Your task to perform on an android device: open app "PlayWell" (install if not already installed) Image 0: 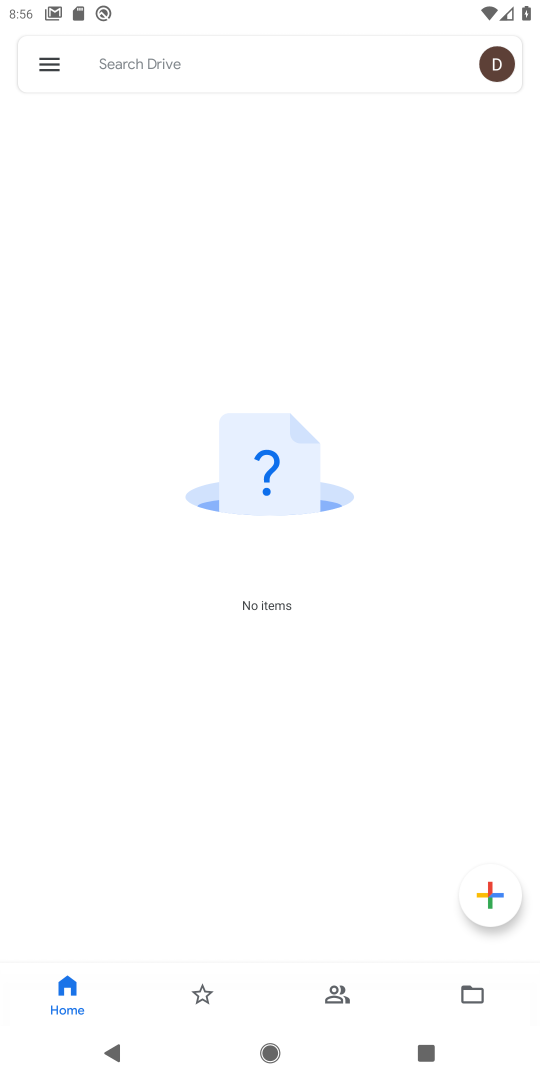
Step 0: press home button
Your task to perform on an android device: open app "PlayWell" (install if not already installed) Image 1: 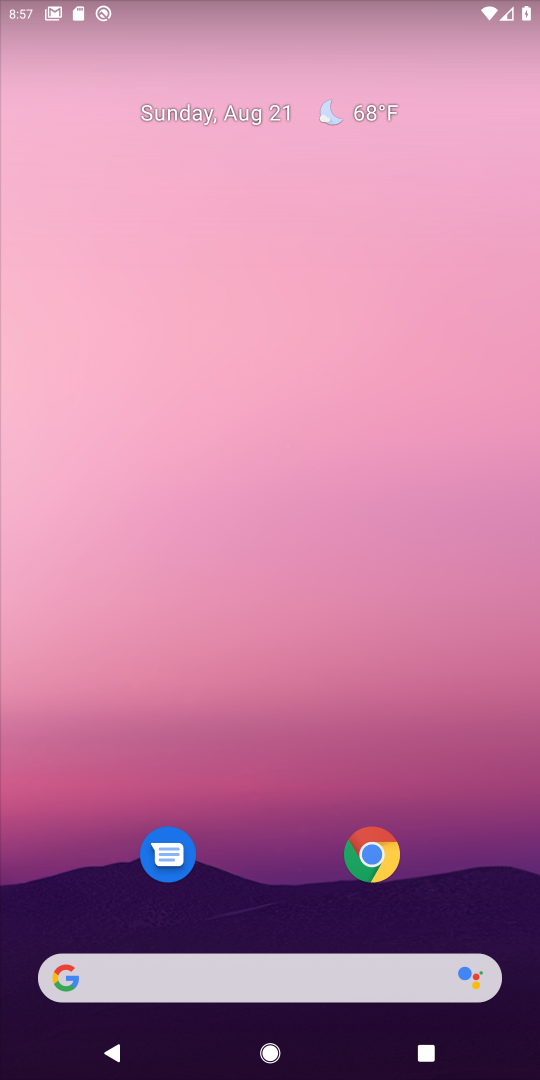
Step 1: drag from (263, 938) to (244, 1)
Your task to perform on an android device: open app "PlayWell" (install if not already installed) Image 2: 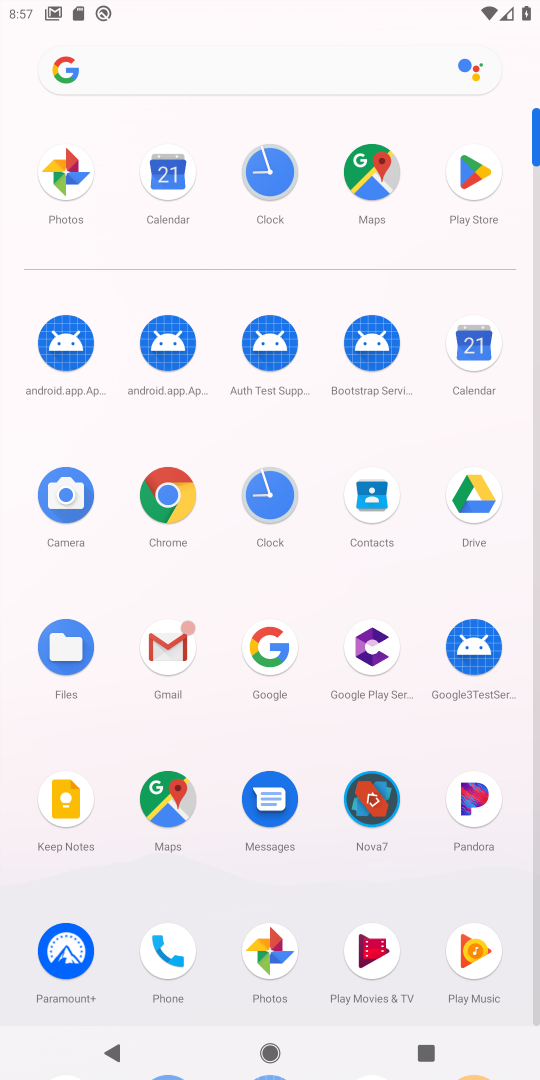
Step 2: click (308, 84)
Your task to perform on an android device: open app "PlayWell" (install if not already installed) Image 3: 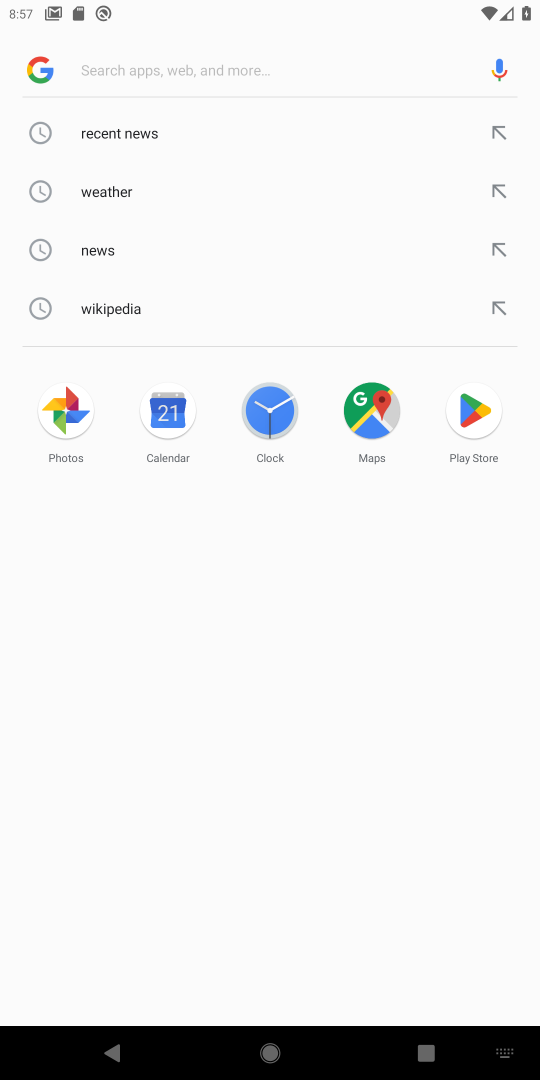
Step 3: type "playwell"
Your task to perform on an android device: open app "PlayWell" (install if not already installed) Image 4: 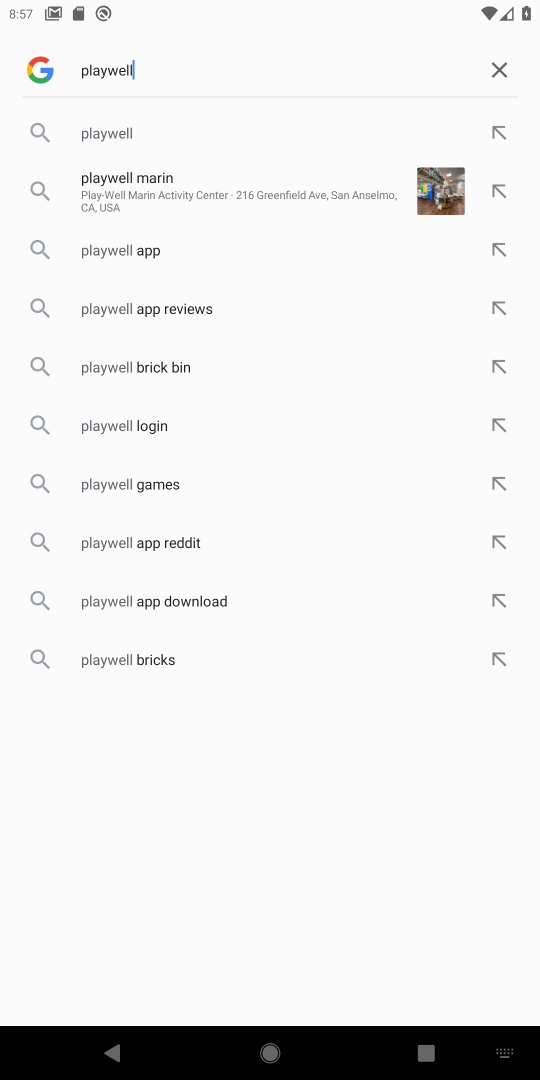
Step 4: click (188, 124)
Your task to perform on an android device: open app "PlayWell" (install if not already installed) Image 5: 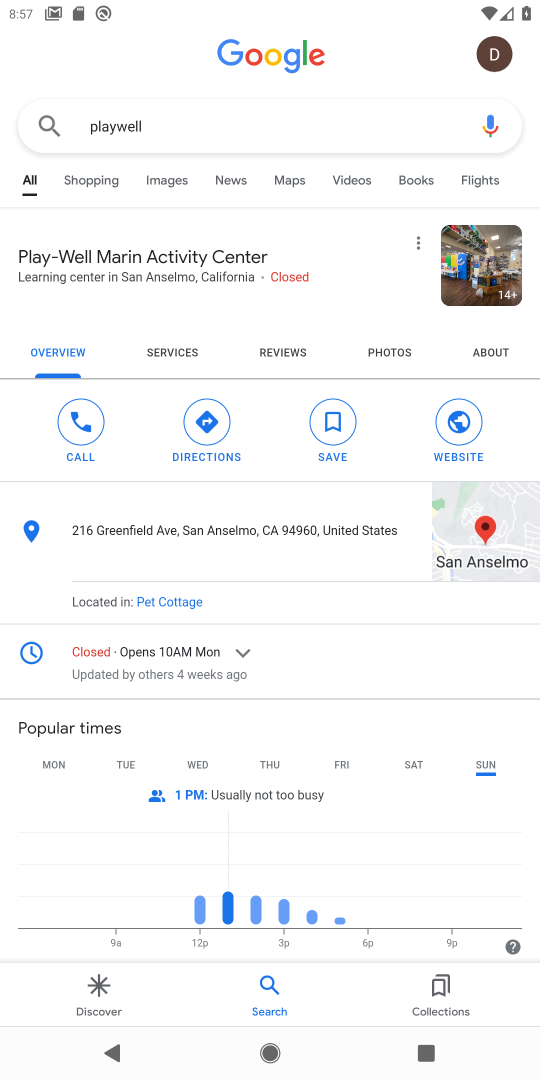
Step 5: task complete